Your task to perform on an android device: Search for usb-a to usb-b on walmart.com, select the first entry, and add it to the cart. Image 0: 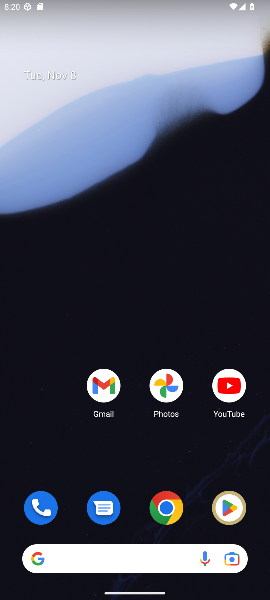
Step 0: press home button
Your task to perform on an android device: Search for usb-a to usb-b on walmart.com, select the first entry, and add it to the cart. Image 1: 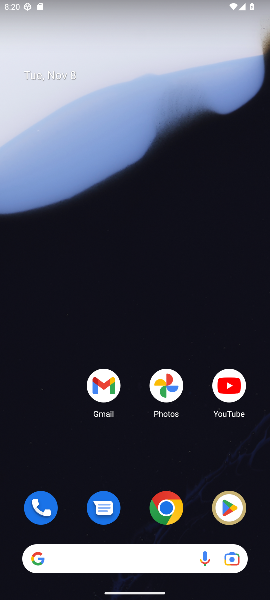
Step 1: click (171, 511)
Your task to perform on an android device: Search for usb-a to usb-b on walmart.com, select the first entry, and add it to the cart. Image 2: 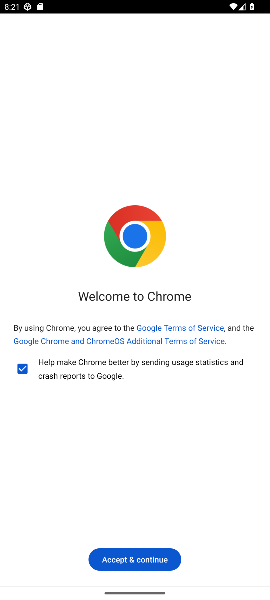
Step 2: click (153, 562)
Your task to perform on an android device: Search for usb-a to usb-b on walmart.com, select the first entry, and add it to the cart. Image 3: 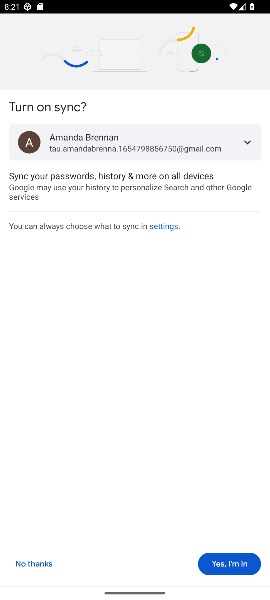
Step 3: click (239, 563)
Your task to perform on an android device: Search for usb-a to usb-b on walmart.com, select the first entry, and add it to the cart. Image 4: 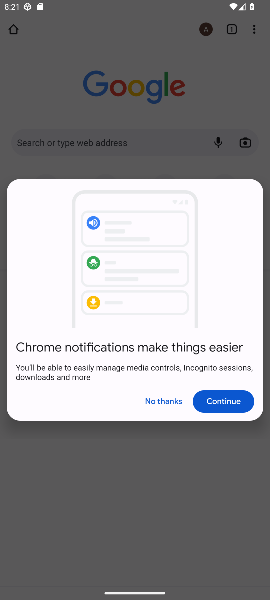
Step 4: click (170, 400)
Your task to perform on an android device: Search for usb-a to usb-b on walmart.com, select the first entry, and add it to the cart. Image 5: 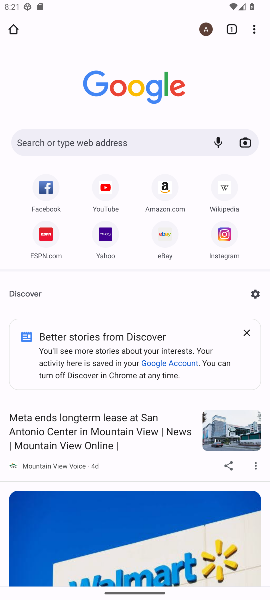
Step 5: click (82, 141)
Your task to perform on an android device: Search for usb-a to usb-b on walmart.com, select the first entry, and add it to the cart. Image 6: 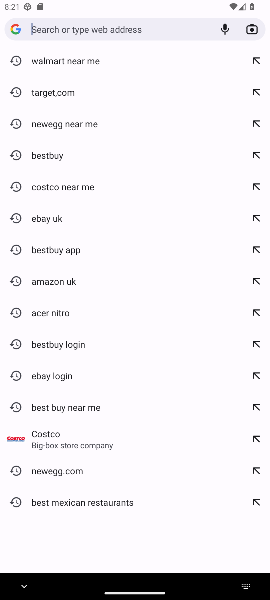
Step 6: type "walmart"
Your task to perform on an android device: Search for usb-a to usb-b on walmart.com, select the first entry, and add it to the cart. Image 7: 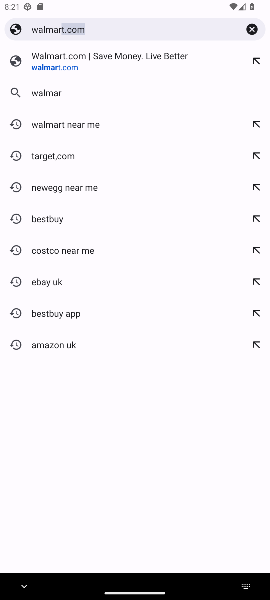
Step 7: type ""
Your task to perform on an android device: Search for usb-a to usb-b on walmart.com, select the first entry, and add it to the cart. Image 8: 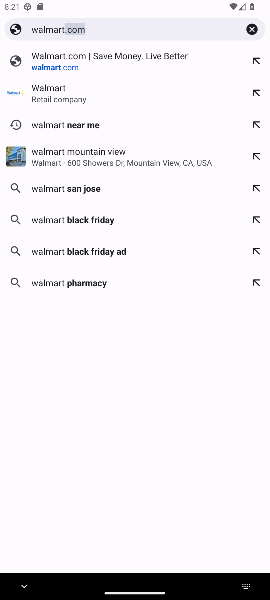
Step 8: click (50, 54)
Your task to perform on an android device: Search for usb-a to usb-b on walmart.com, select the first entry, and add it to the cart. Image 9: 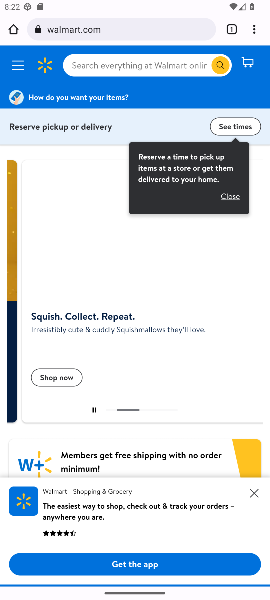
Step 9: click (108, 66)
Your task to perform on an android device: Search for usb-a to usb-b on walmart.com, select the first entry, and add it to the cart. Image 10: 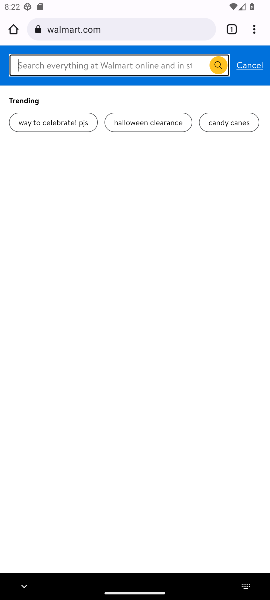
Step 10: type "usb a to usb b"
Your task to perform on an android device: Search for usb-a to usb-b on walmart.com, select the first entry, and add it to the cart. Image 11: 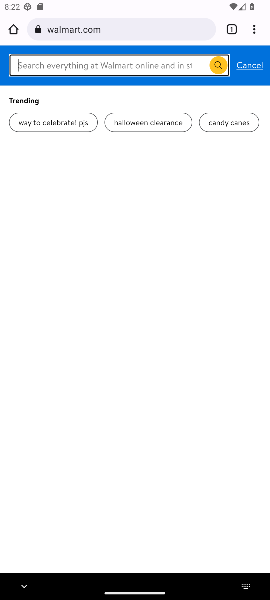
Step 11: type ""
Your task to perform on an android device: Search for usb-a to usb-b on walmart.com, select the first entry, and add it to the cart. Image 12: 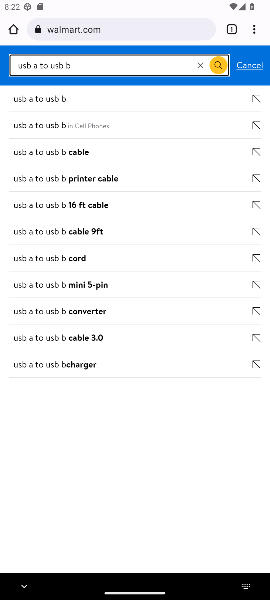
Step 12: click (65, 107)
Your task to perform on an android device: Search for usb-a to usb-b on walmart.com, select the first entry, and add it to the cart. Image 13: 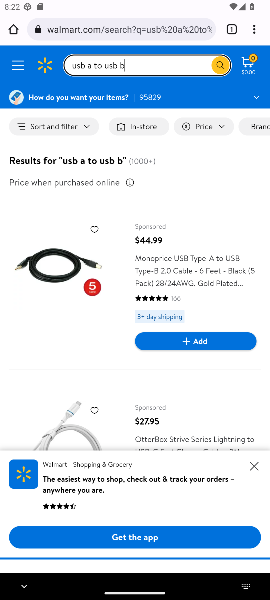
Step 13: click (249, 462)
Your task to perform on an android device: Search for usb-a to usb-b on walmart.com, select the first entry, and add it to the cart. Image 14: 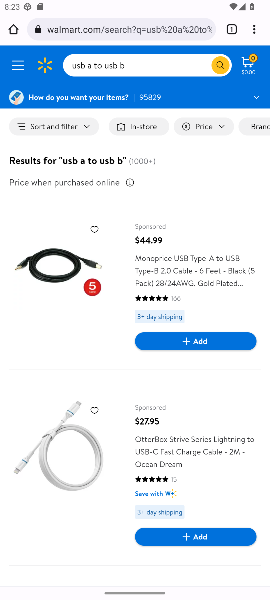
Step 14: drag from (105, 500) to (72, 117)
Your task to perform on an android device: Search for usb-a to usb-b on walmart.com, select the first entry, and add it to the cart. Image 15: 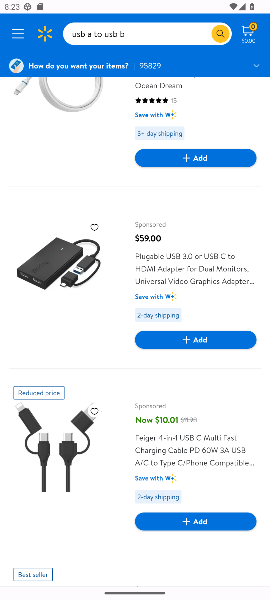
Step 15: click (29, 274)
Your task to perform on an android device: Search for usb-a to usb-b on walmart.com, select the first entry, and add it to the cart. Image 16: 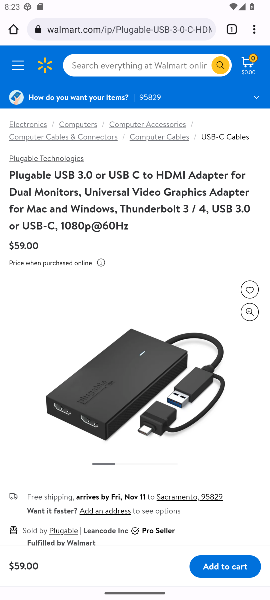
Step 16: click (223, 567)
Your task to perform on an android device: Search for usb-a to usb-b on walmart.com, select the first entry, and add it to the cart. Image 17: 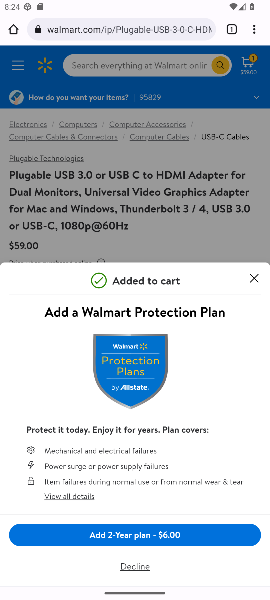
Step 17: click (260, 277)
Your task to perform on an android device: Search for usb-a to usb-b on walmart.com, select the first entry, and add it to the cart. Image 18: 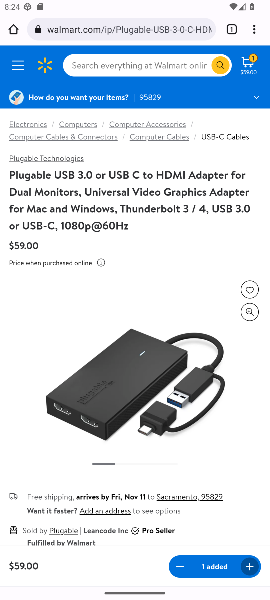
Step 18: click (244, 68)
Your task to perform on an android device: Search for usb-a to usb-b on walmart.com, select the first entry, and add it to the cart. Image 19: 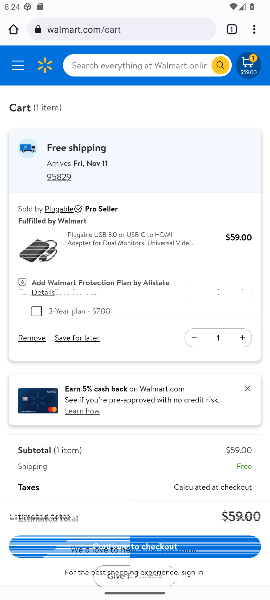
Step 19: task complete